Your task to perform on an android device: stop showing notifications on the lock screen Image 0: 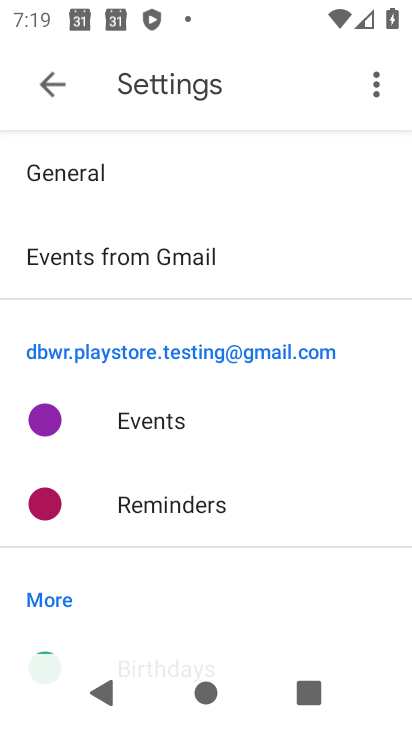
Step 0: press home button
Your task to perform on an android device: stop showing notifications on the lock screen Image 1: 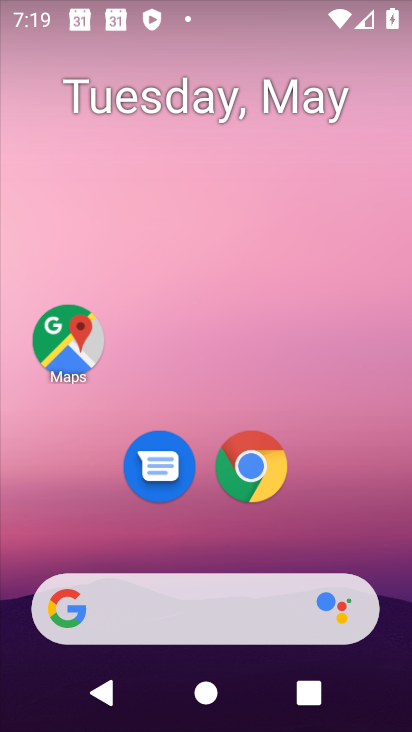
Step 1: drag from (152, 576) to (308, 72)
Your task to perform on an android device: stop showing notifications on the lock screen Image 2: 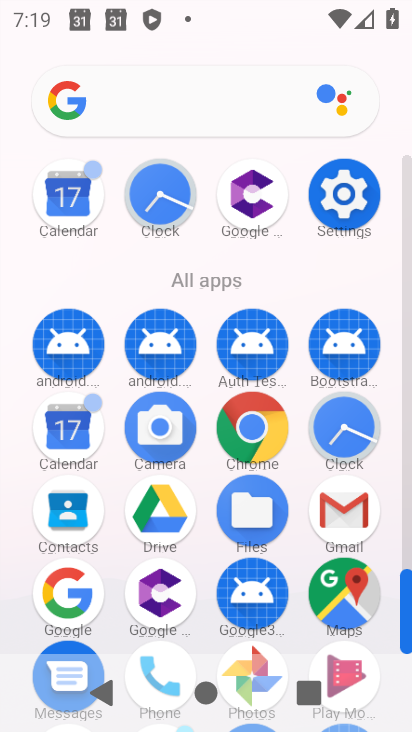
Step 2: click (343, 203)
Your task to perform on an android device: stop showing notifications on the lock screen Image 3: 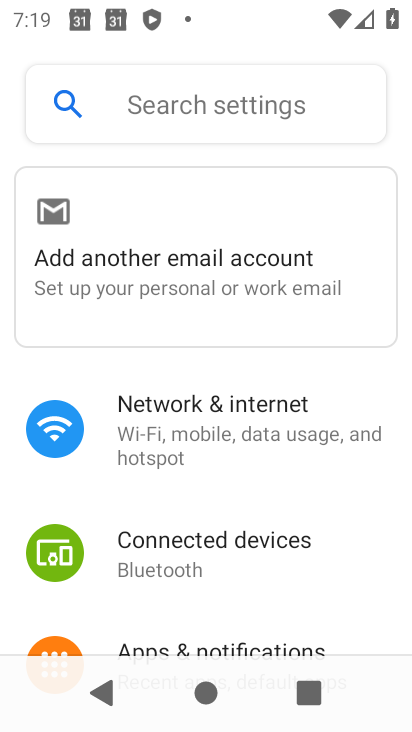
Step 3: drag from (238, 611) to (346, 189)
Your task to perform on an android device: stop showing notifications on the lock screen Image 4: 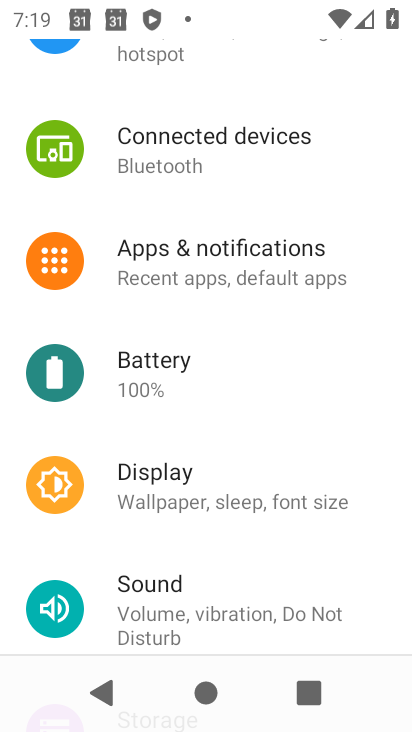
Step 4: click (285, 245)
Your task to perform on an android device: stop showing notifications on the lock screen Image 5: 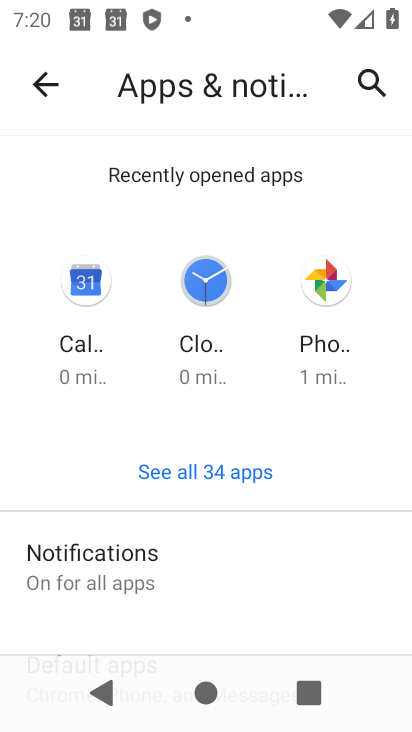
Step 5: click (110, 559)
Your task to perform on an android device: stop showing notifications on the lock screen Image 6: 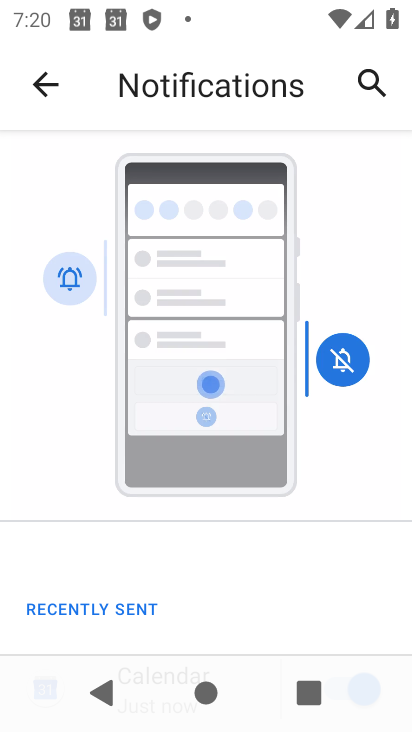
Step 6: drag from (344, 183) to (377, 126)
Your task to perform on an android device: stop showing notifications on the lock screen Image 7: 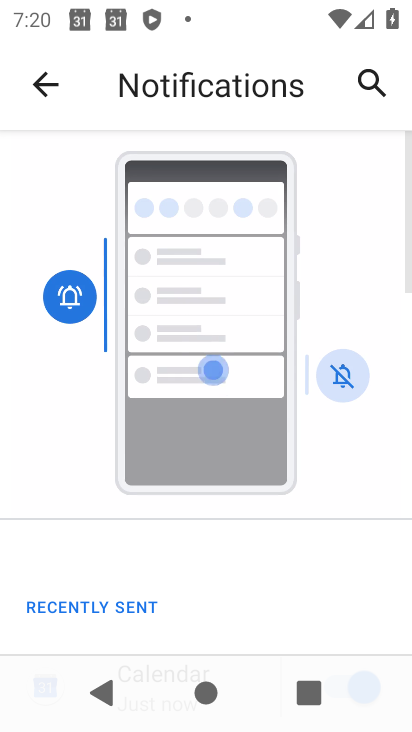
Step 7: drag from (251, 551) to (378, 133)
Your task to perform on an android device: stop showing notifications on the lock screen Image 8: 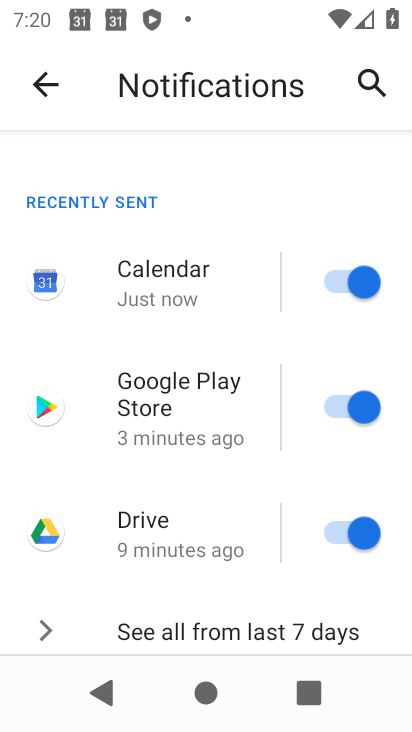
Step 8: drag from (248, 597) to (411, 104)
Your task to perform on an android device: stop showing notifications on the lock screen Image 9: 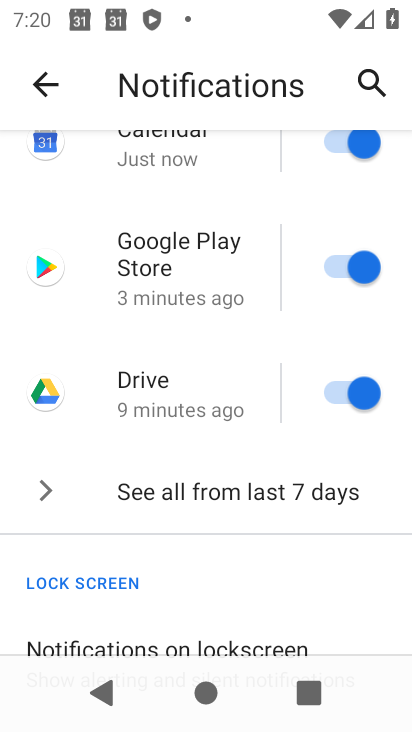
Step 9: drag from (212, 591) to (395, 127)
Your task to perform on an android device: stop showing notifications on the lock screen Image 10: 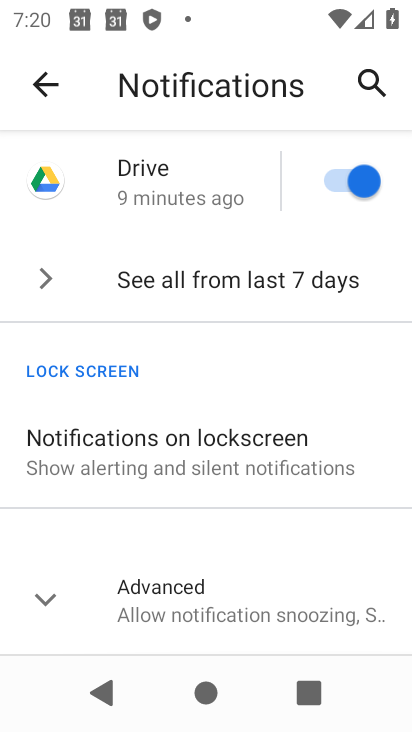
Step 10: click (244, 442)
Your task to perform on an android device: stop showing notifications on the lock screen Image 11: 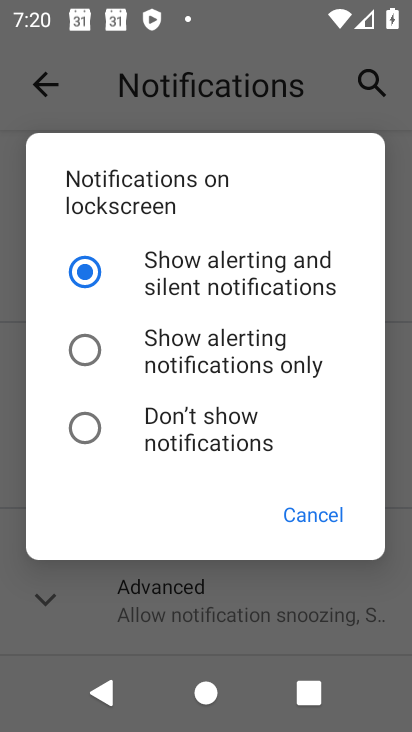
Step 11: click (90, 428)
Your task to perform on an android device: stop showing notifications on the lock screen Image 12: 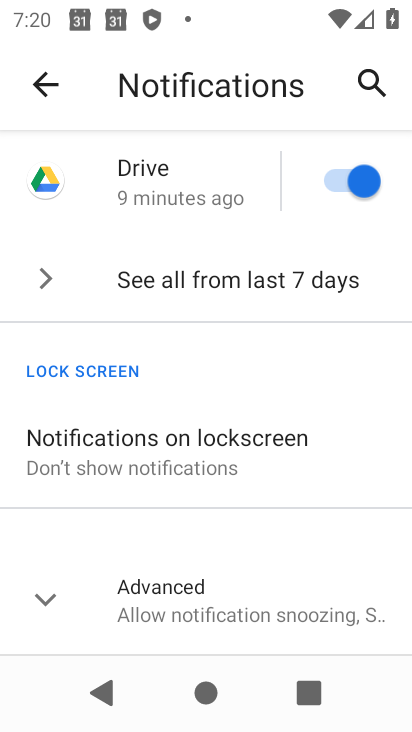
Step 12: task complete